Your task to perform on an android device: change alarm snooze length Image 0: 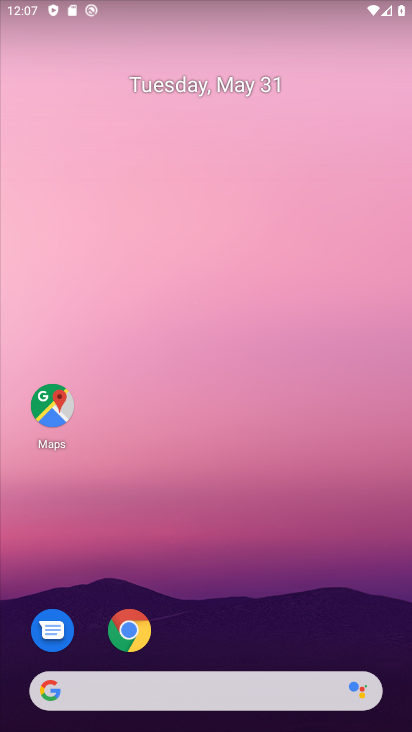
Step 0: drag from (233, 574) to (286, 208)
Your task to perform on an android device: change alarm snooze length Image 1: 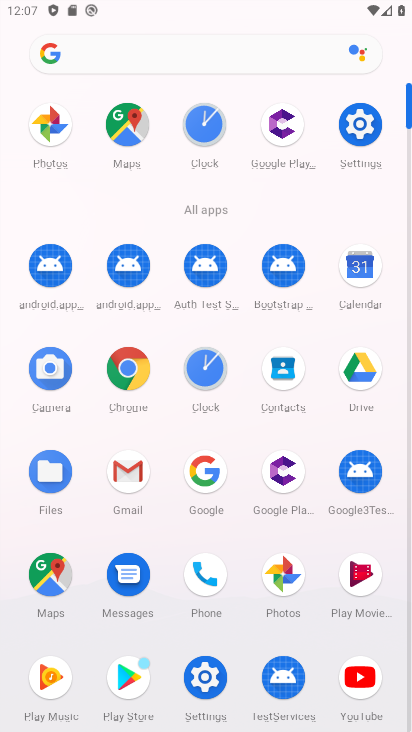
Step 1: click (204, 128)
Your task to perform on an android device: change alarm snooze length Image 2: 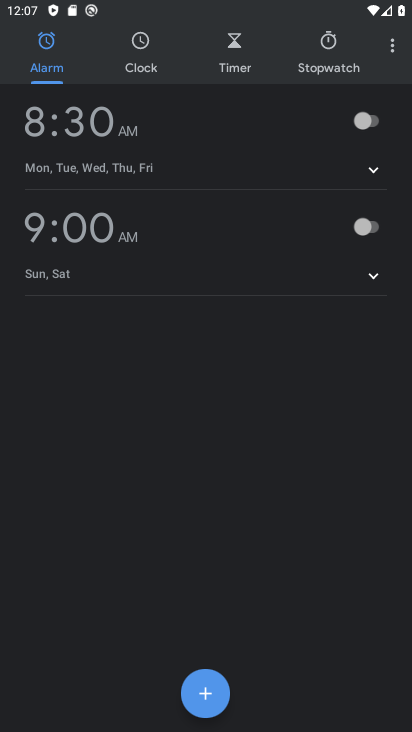
Step 2: click (397, 47)
Your task to perform on an android device: change alarm snooze length Image 3: 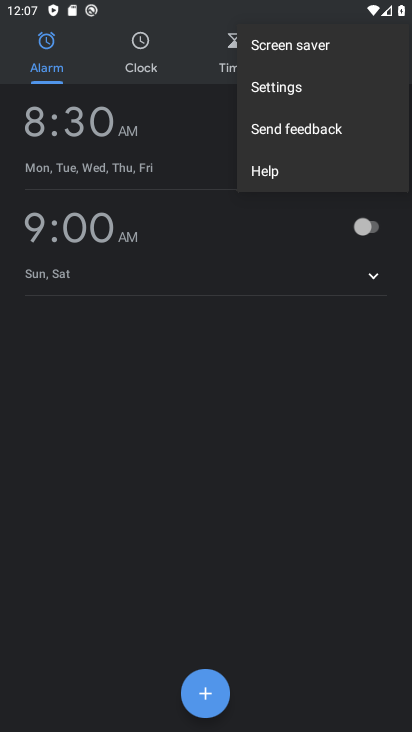
Step 3: click (296, 85)
Your task to perform on an android device: change alarm snooze length Image 4: 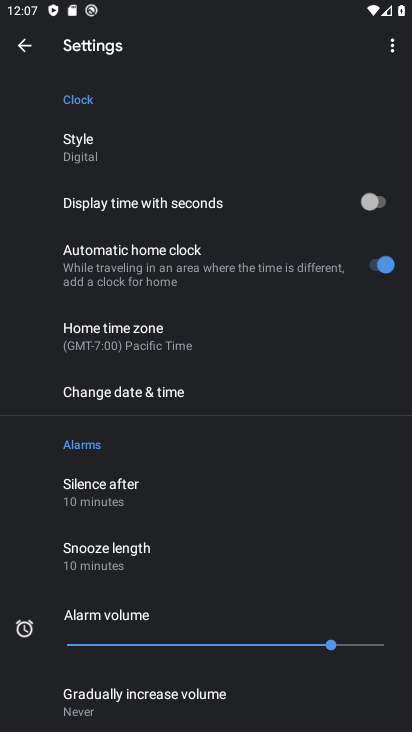
Step 4: click (103, 561)
Your task to perform on an android device: change alarm snooze length Image 5: 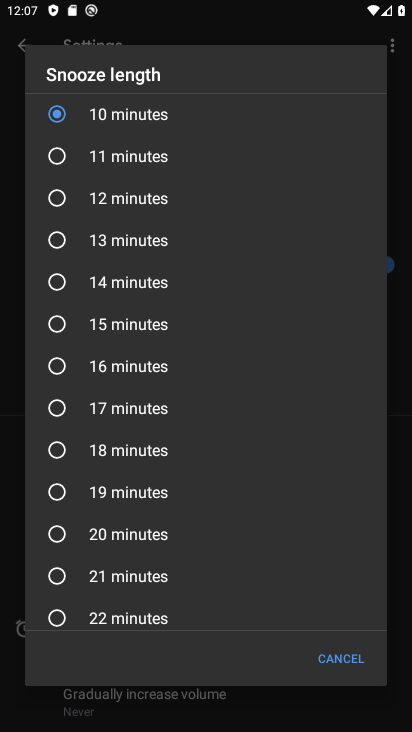
Step 5: click (54, 159)
Your task to perform on an android device: change alarm snooze length Image 6: 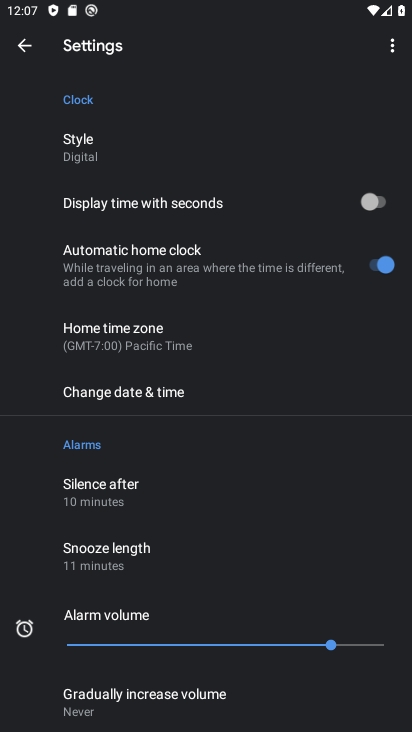
Step 6: task complete